Your task to perform on an android device: Check the weather Image 0: 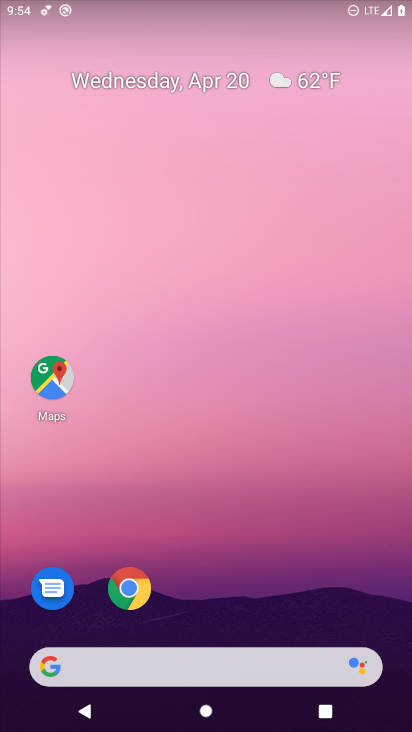
Step 0: click (302, 76)
Your task to perform on an android device: Check the weather Image 1: 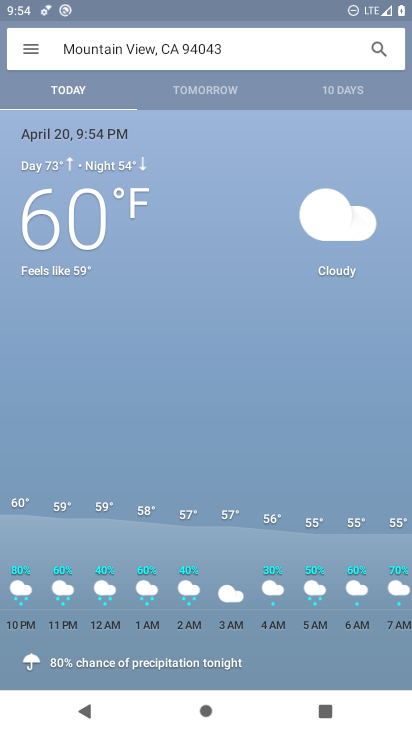
Step 1: task complete